Your task to perform on an android device: open a new tab in the chrome app Image 0: 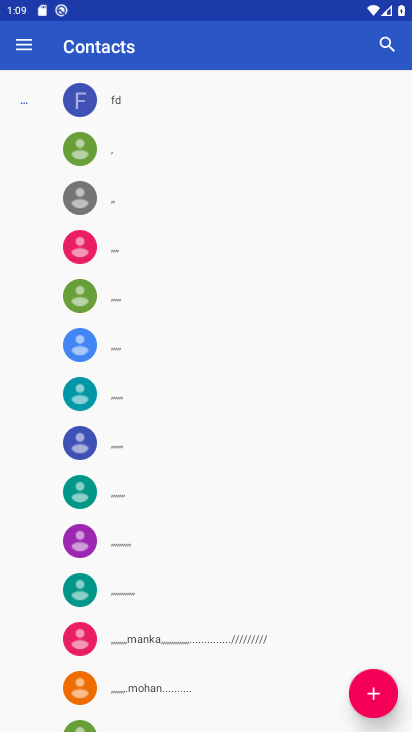
Step 0: press home button
Your task to perform on an android device: open a new tab in the chrome app Image 1: 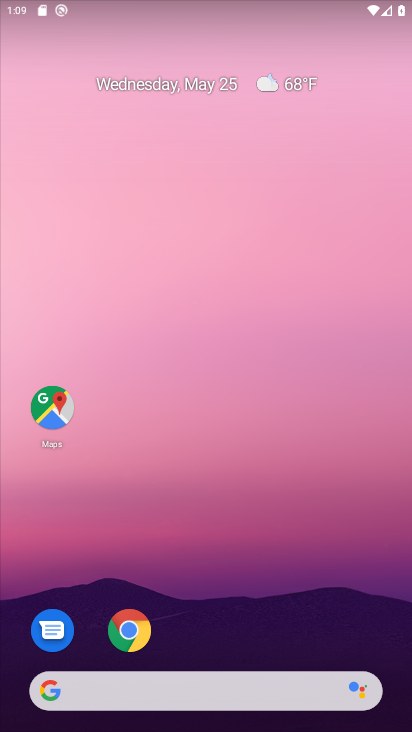
Step 1: click (143, 622)
Your task to perform on an android device: open a new tab in the chrome app Image 2: 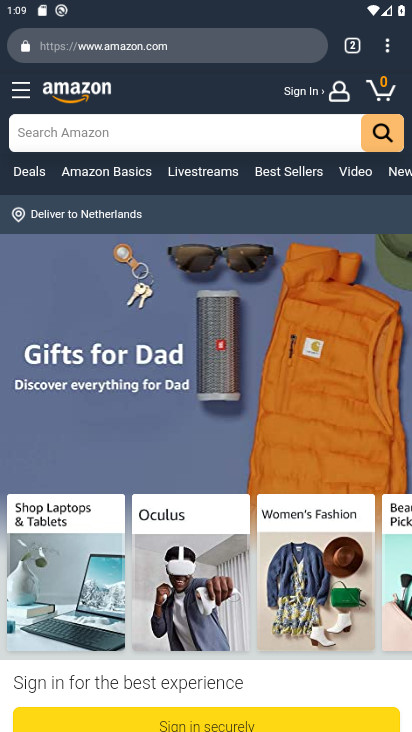
Step 2: click (340, 45)
Your task to perform on an android device: open a new tab in the chrome app Image 3: 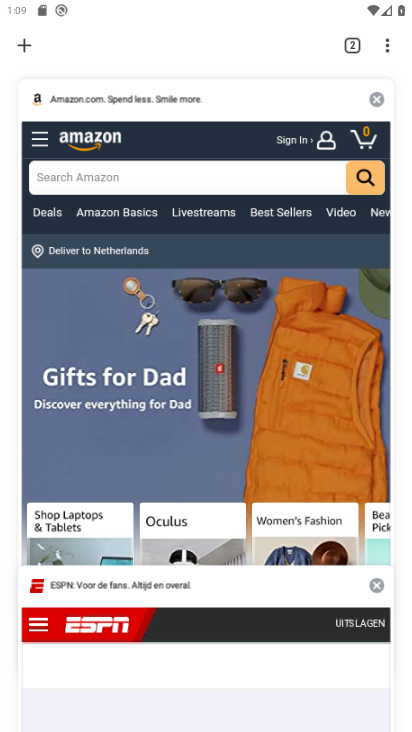
Step 3: click (30, 48)
Your task to perform on an android device: open a new tab in the chrome app Image 4: 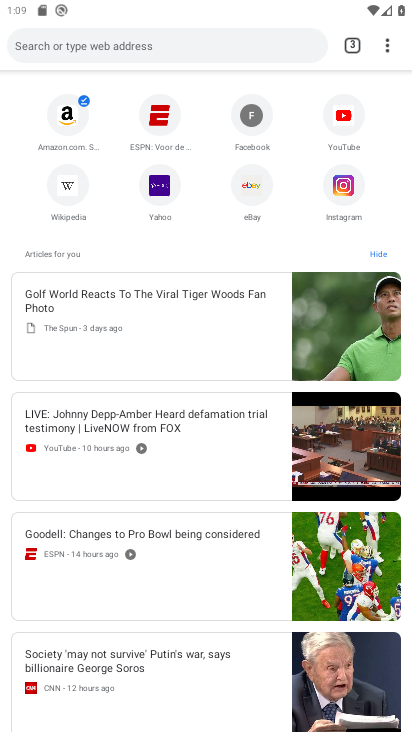
Step 4: task complete